Your task to perform on an android device: turn vacation reply on in the gmail app Image 0: 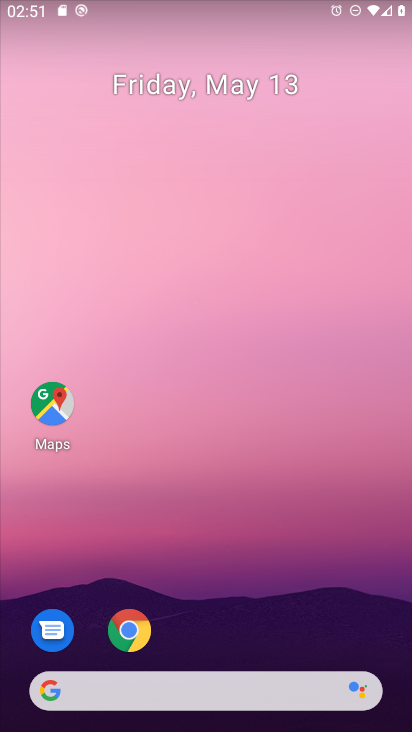
Step 0: drag from (279, 700) to (400, 263)
Your task to perform on an android device: turn vacation reply on in the gmail app Image 1: 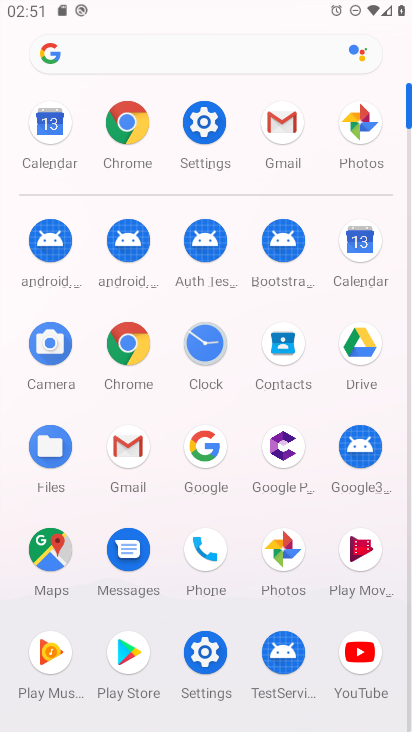
Step 1: click (141, 456)
Your task to perform on an android device: turn vacation reply on in the gmail app Image 2: 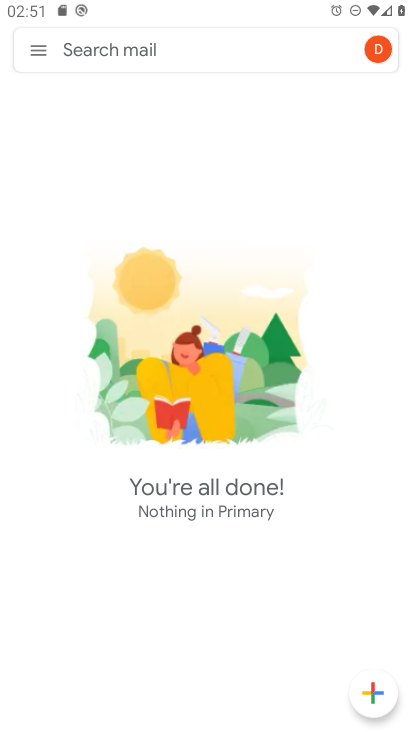
Step 2: click (34, 39)
Your task to perform on an android device: turn vacation reply on in the gmail app Image 3: 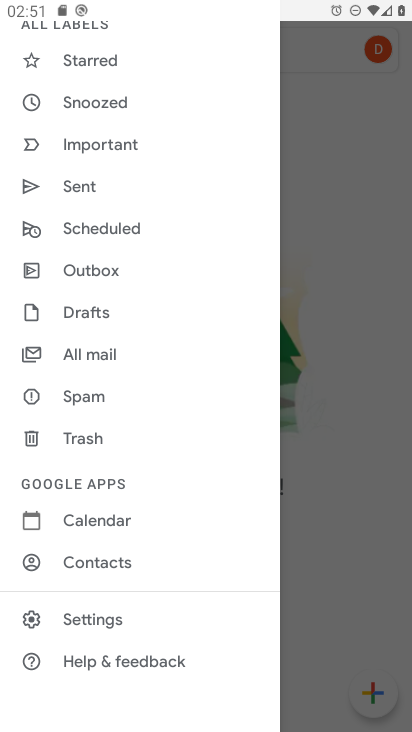
Step 3: click (108, 610)
Your task to perform on an android device: turn vacation reply on in the gmail app Image 4: 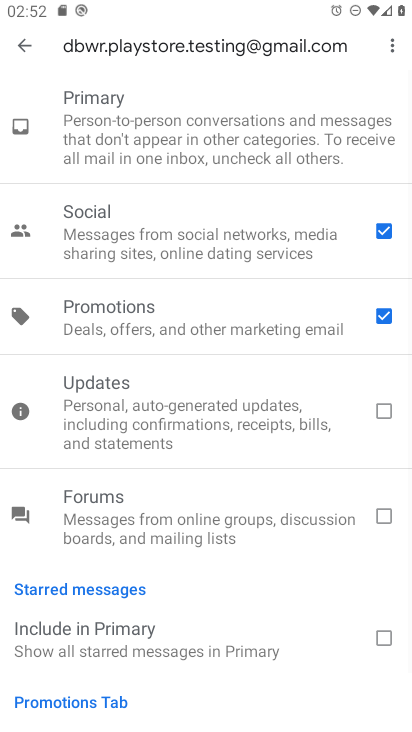
Step 4: drag from (195, 598) to (264, 121)
Your task to perform on an android device: turn vacation reply on in the gmail app Image 5: 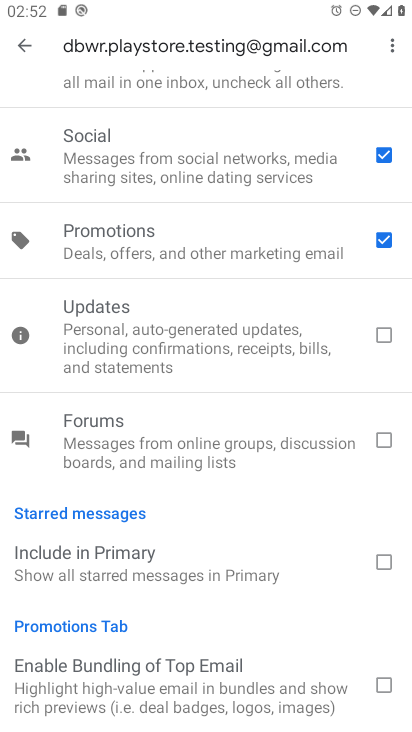
Step 5: click (17, 48)
Your task to perform on an android device: turn vacation reply on in the gmail app Image 6: 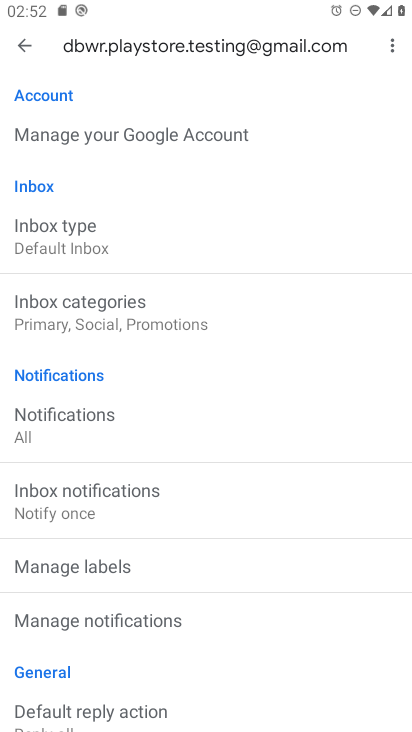
Step 6: drag from (161, 541) to (310, 58)
Your task to perform on an android device: turn vacation reply on in the gmail app Image 7: 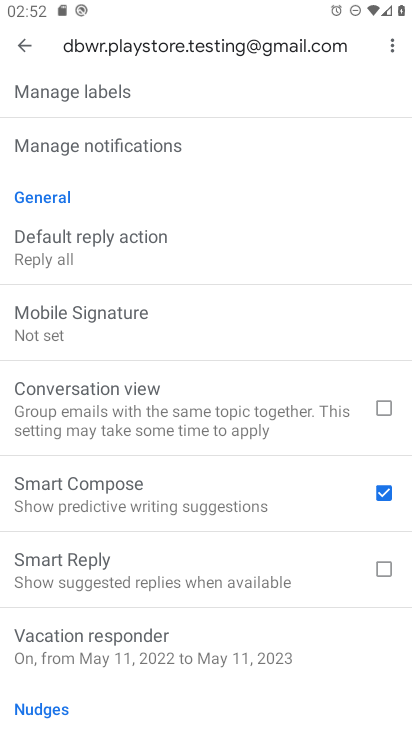
Step 7: click (117, 642)
Your task to perform on an android device: turn vacation reply on in the gmail app Image 8: 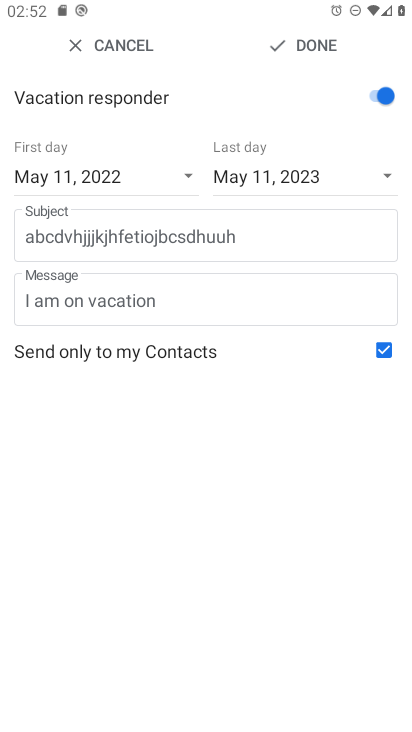
Step 8: task complete